Your task to perform on an android device: Turn off the flashlight Image 0: 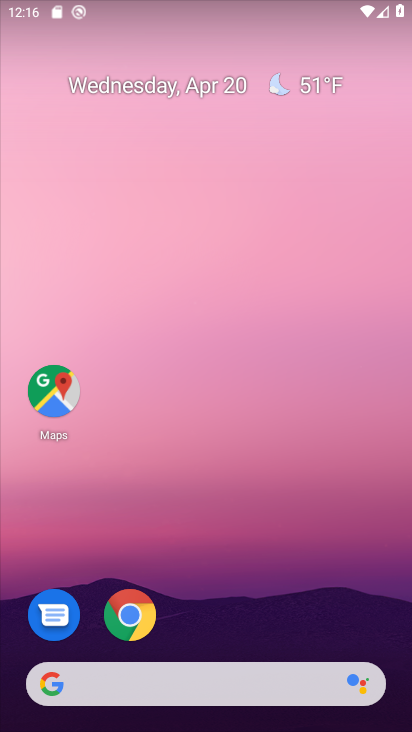
Step 0: drag from (172, 684) to (173, 457)
Your task to perform on an android device: Turn off the flashlight Image 1: 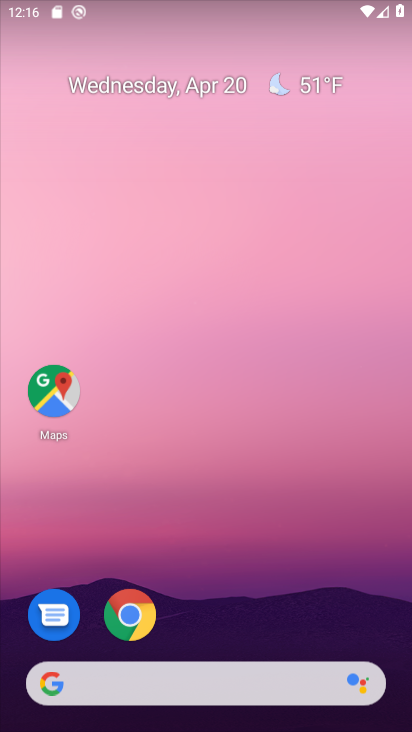
Step 1: task complete